Your task to perform on an android device: Empty the shopping cart on costco. Search for razer blade on costco, select the first entry, add it to the cart, then select checkout. Image 0: 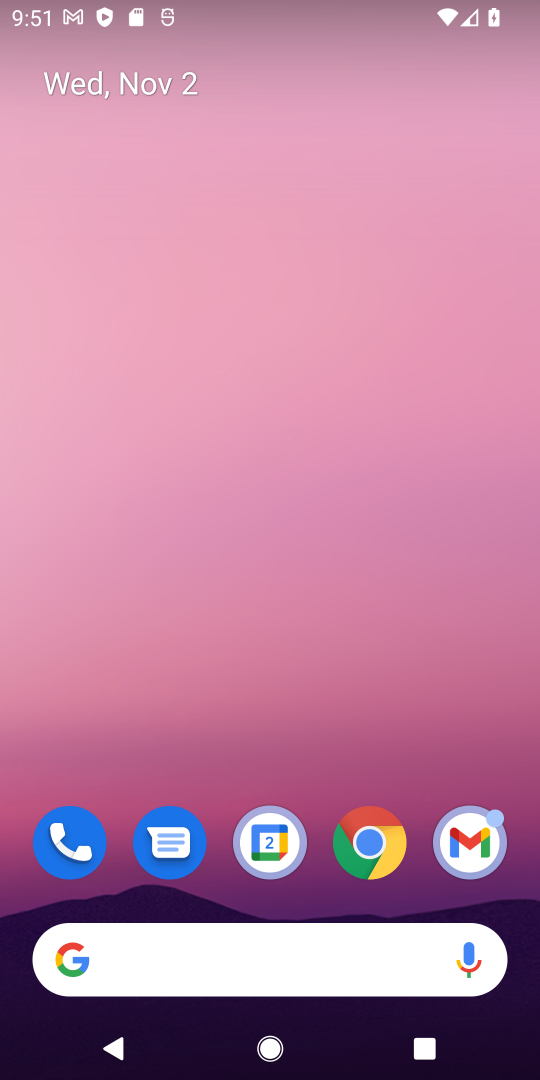
Step 0: drag from (194, 865) to (221, 176)
Your task to perform on an android device: Empty the shopping cart on costco. Search for razer blade on costco, select the first entry, add it to the cart, then select checkout. Image 1: 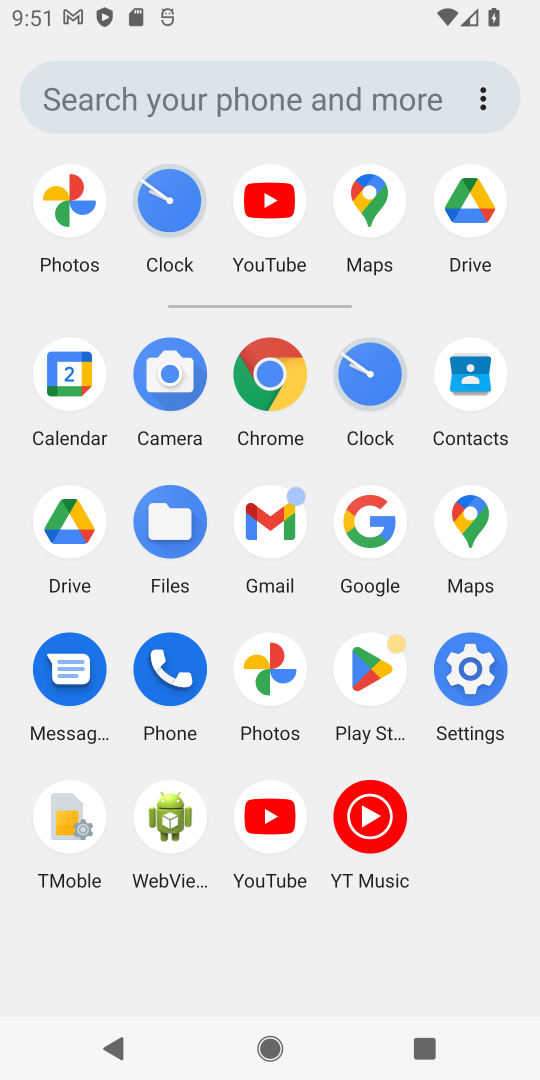
Step 1: click (358, 520)
Your task to perform on an android device: Empty the shopping cart on costco. Search for razer blade on costco, select the first entry, add it to the cart, then select checkout. Image 2: 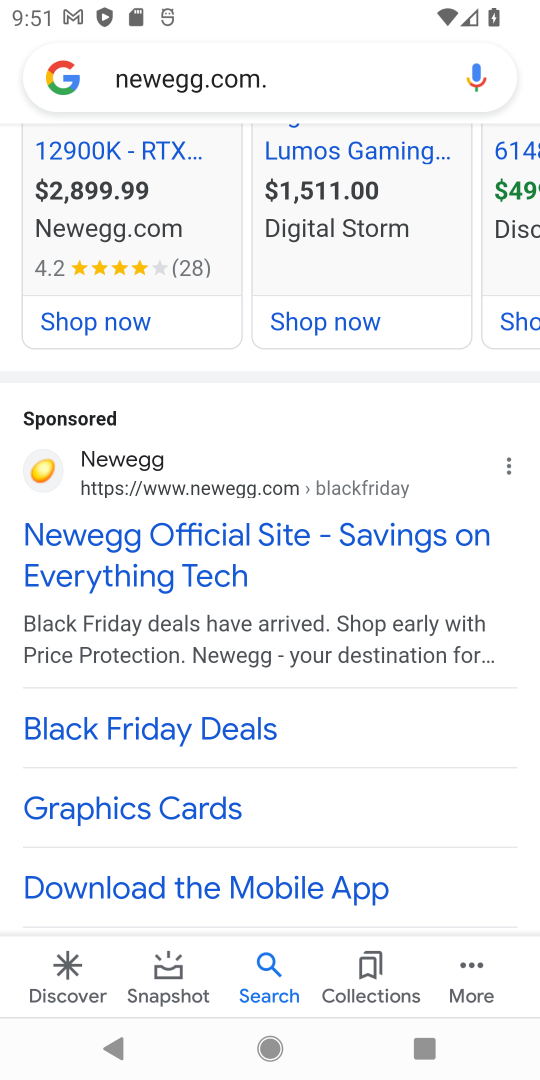
Step 2: click (310, 62)
Your task to perform on an android device: Empty the shopping cart on costco. Search for razer blade on costco, select the first entry, add it to the cart, then select checkout. Image 3: 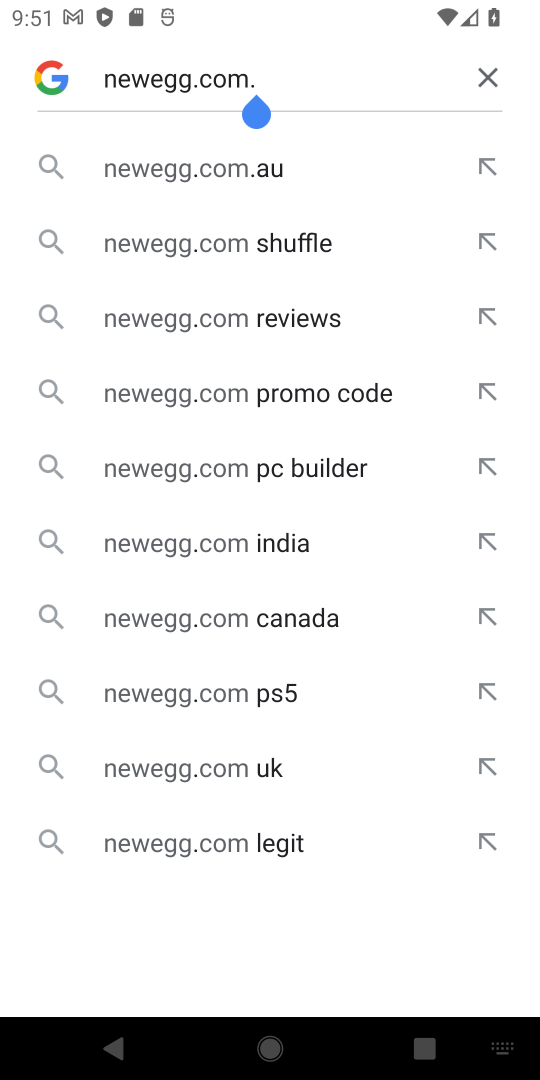
Step 3: click (493, 77)
Your task to perform on an android device: Empty the shopping cart on costco. Search for razer blade on costco, select the first entry, add it to the cart, then select checkout. Image 4: 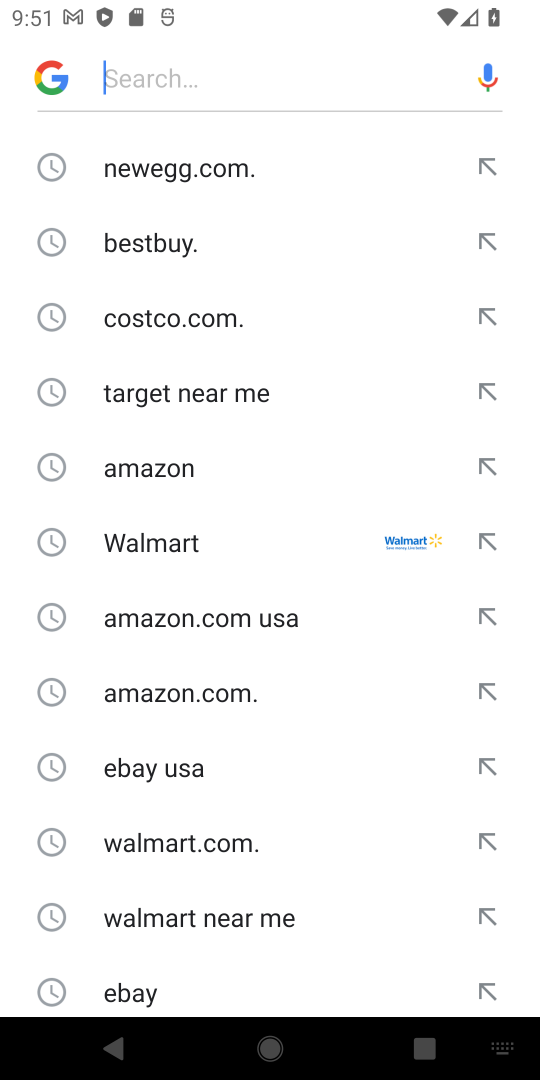
Step 4: click (229, 307)
Your task to perform on an android device: Empty the shopping cart on costco. Search for razer blade on costco, select the first entry, add it to the cart, then select checkout. Image 5: 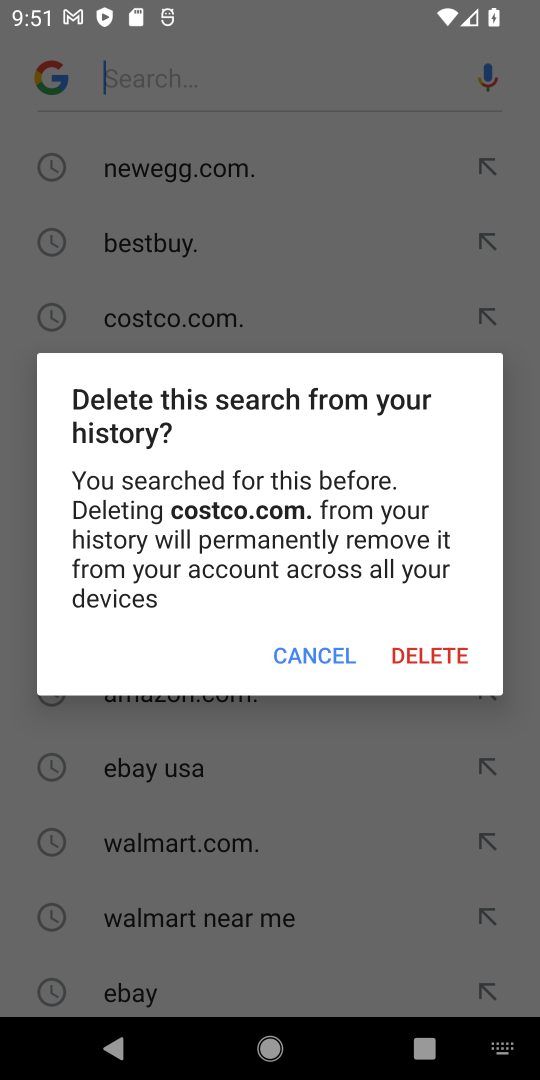
Step 5: click (319, 671)
Your task to perform on an android device: Empty the shopping cart on costco. Search for razer blade on costco, select the first entry, add it to the cart, then select checkout. Image 6: 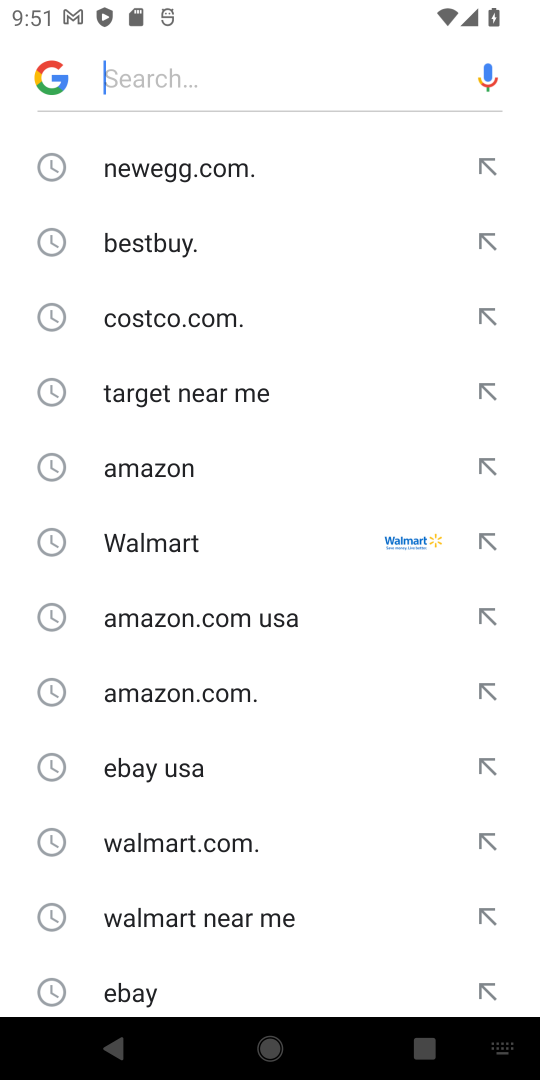
Step 6: click (254, 65)
Your task to perform on an android device: Empty the shopping cart on costco. Search for razer blade on costco, select the first entry, add it to the cart, then select checkout. Image 7: 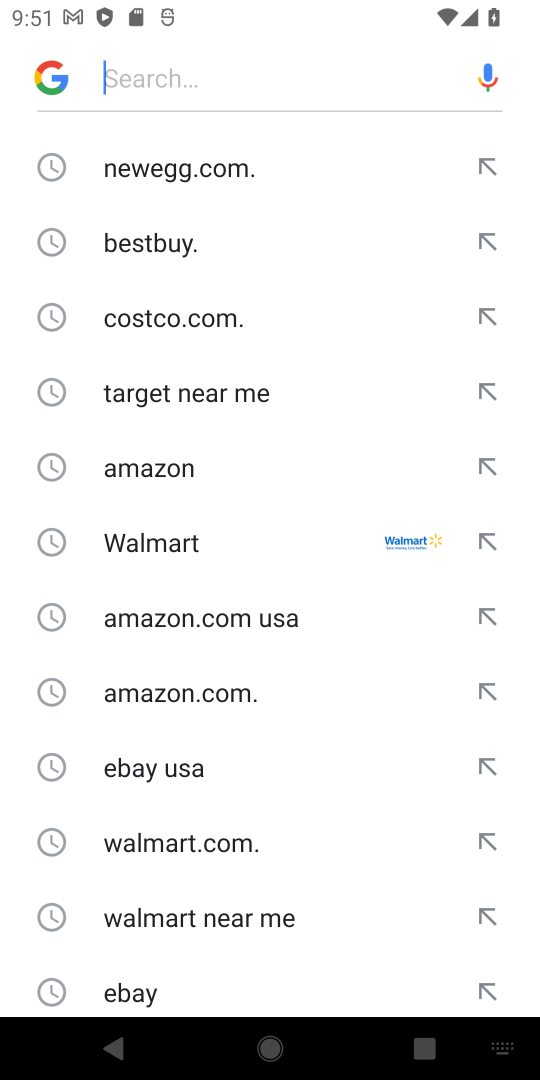
Step 7: type "costco "
Your task to perform on an android device: Empty the shopping cart on costco. Search for razer blade on costco, select the first entry, add it to the cart, then select checkout. Image 8: 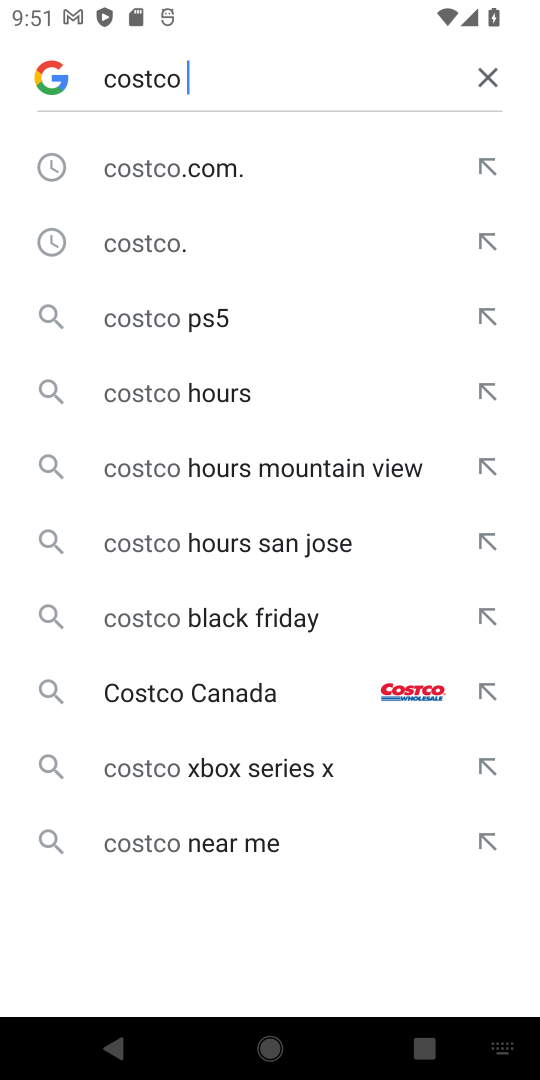
Step 8: click (180, 232)
Your task to perform on an android device: Empty the shopping cart on costco. Search for razer blade on costco, select the first entry, add it to the cart, then select checkout. Image 9: 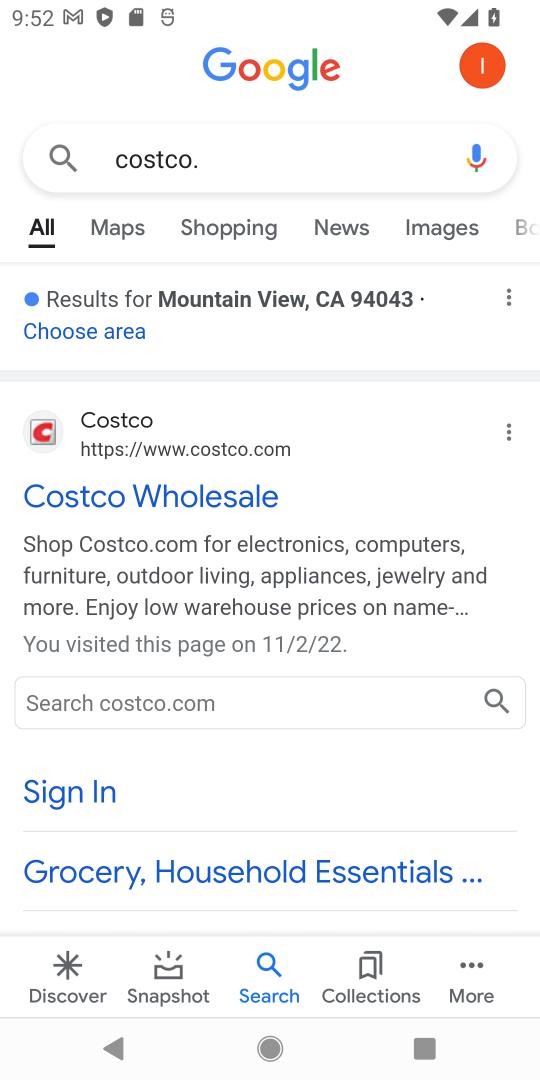
Step 9: click (49, 422)
Your task to perform on an android device: Empty the shopping cart on costco. Search for razer blade on costco, select the first entry, add it to the cart, then select checkout. Image 10: 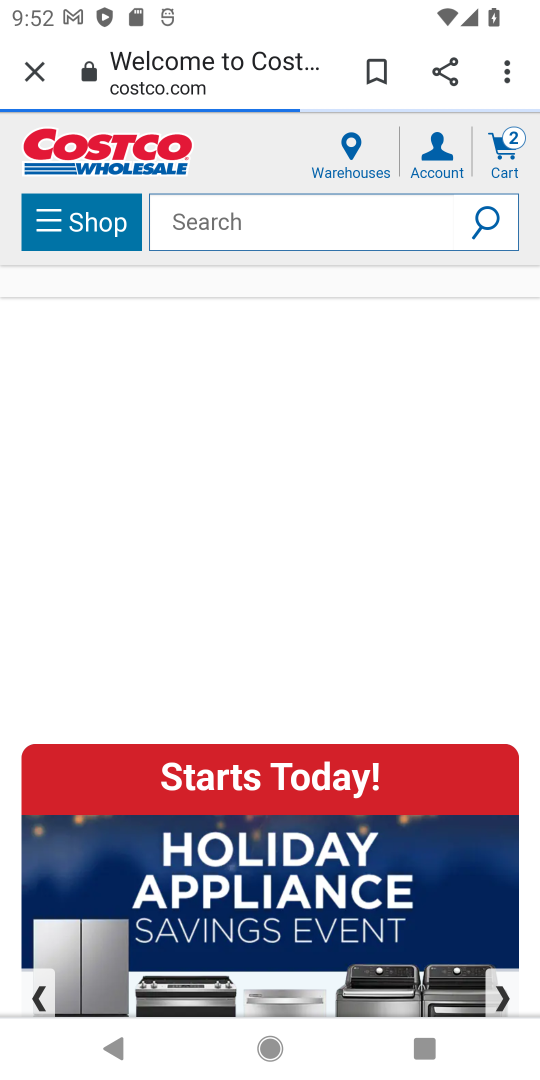
Step 10: click (231, 209)
Your task to perform on an android device: Empty the shopping cart on costco. Search for razer blade on costco, select the first entry, add it to the cart, then select checkout. Image 11: 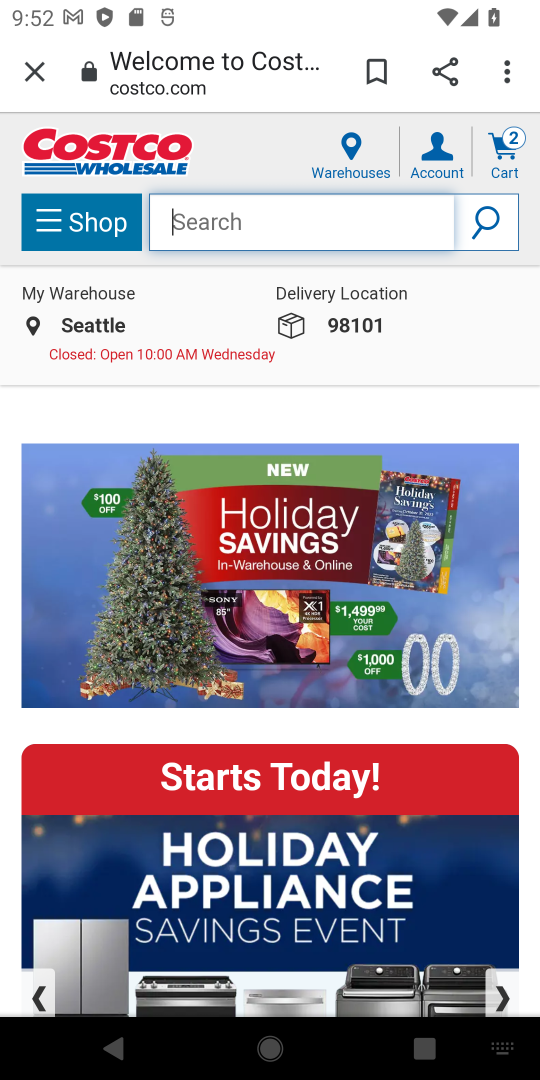
Step 11: click (356, 212)
Your task to perform on an android device: Empty the shopping cart on costco. Search for razer blade on costco, select the first entry, add it to the cart, then select checkout. Image 12: 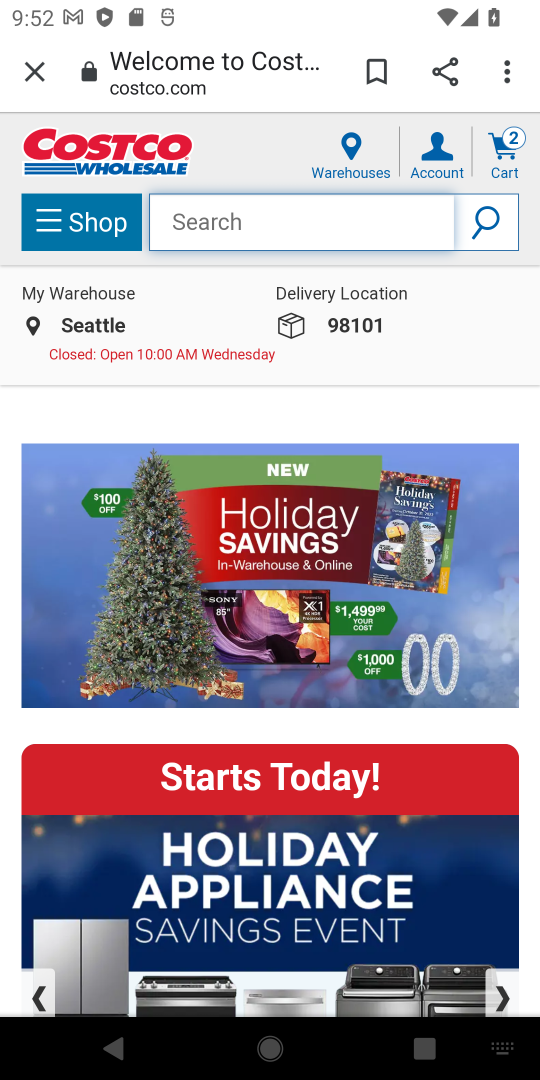
Step 12: type "costco "
Your task to perform on an android device: Empty the shopping cart on costco. Search for razer blade on costco, select the first entry, add it to the cart, then select checkout. Image 13: 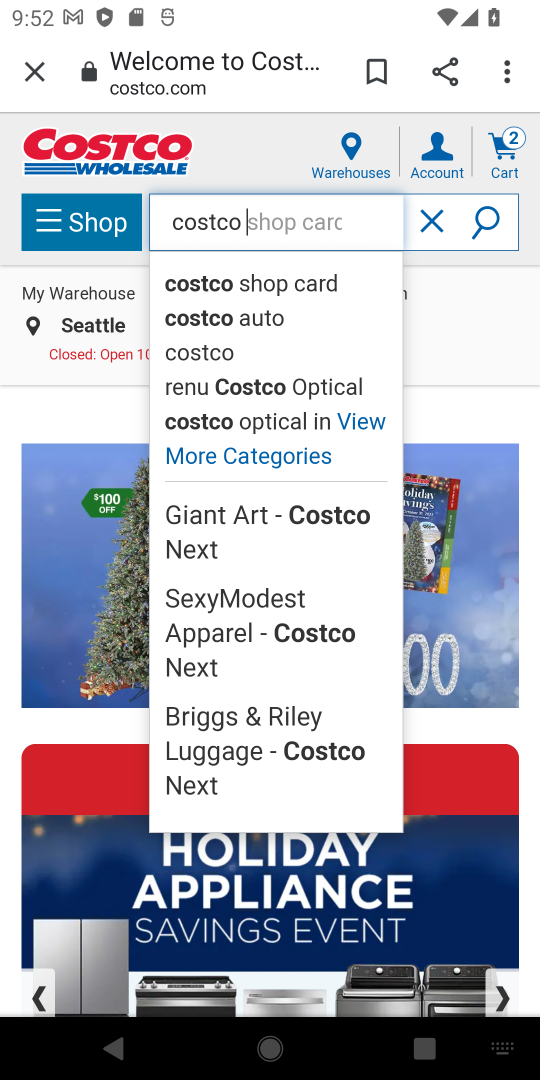
Step 13: click (447, 226)
Your task to perform on an android device: Empty the shopping cart on costco. Search for razer blade on costco, select the first entry, add it to the cart, then select checkout. Image 14: 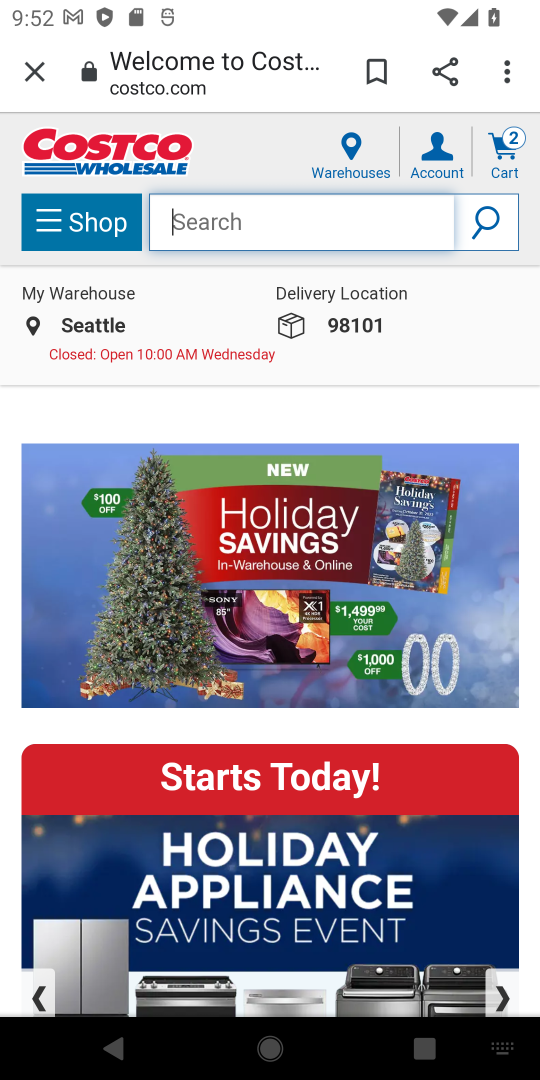
Step 14: click (368, 212)
Your task to perform on an android device: Empty the shopping cart on costco. Search for razer blade on costco, select the first entry, add it to the cart, then select checkout. Image 15: 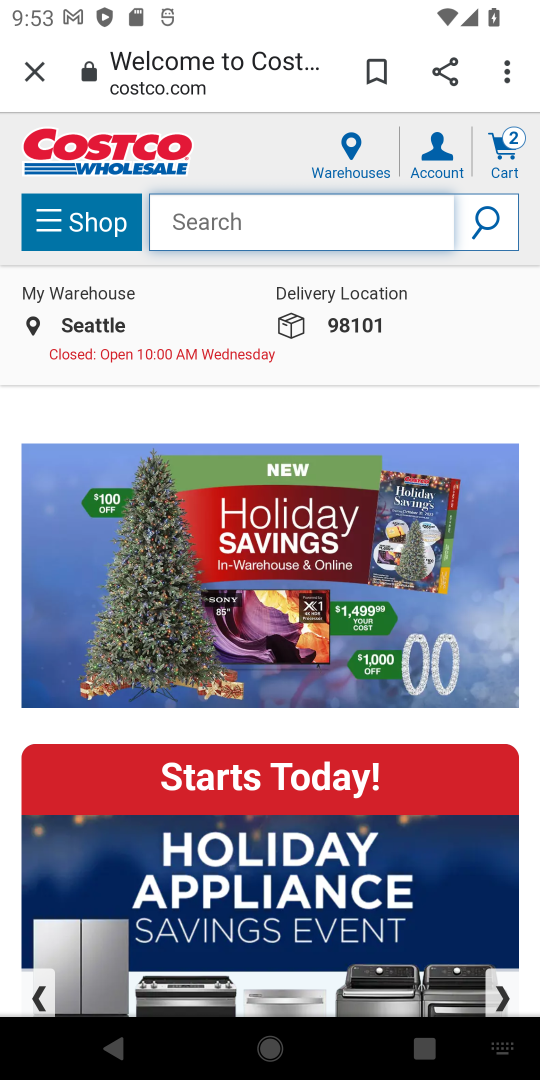
Step 15: type "razer blade  "
Your task to perform on an android device: Empty the shopping cart on costco. Search for razer blade on costco, select the first entry, add it to the cart, then select checkout. Image 16: 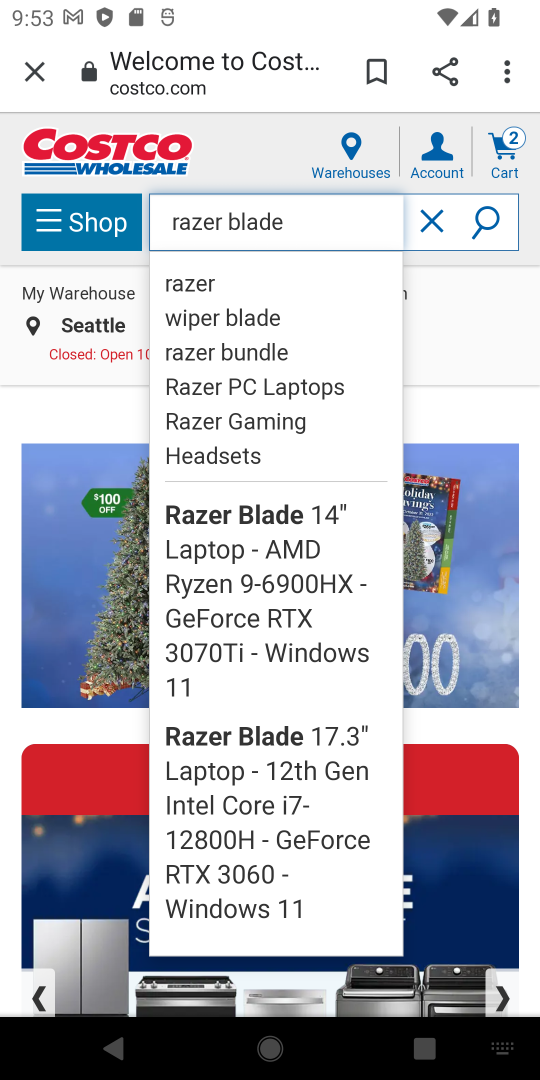
Step 16: click (229, 511)
Your task to perform on an android device: Empty the shopping cart on costco. Search for razer blade on costco, select the first entry, add it to the cart, then select checkout. Image 17: 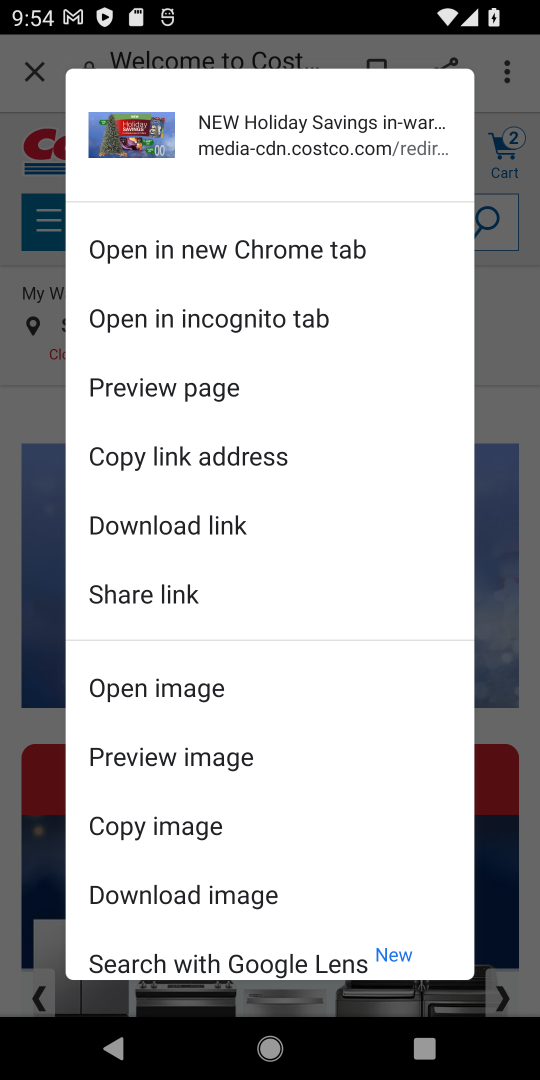
Step 17: click (504, 416)
Your task to perform on an android device: Empty the shopping cart on costco. Search for razer blade on costco, select the first entry, add it to the cart, then select checkout. Image 18: 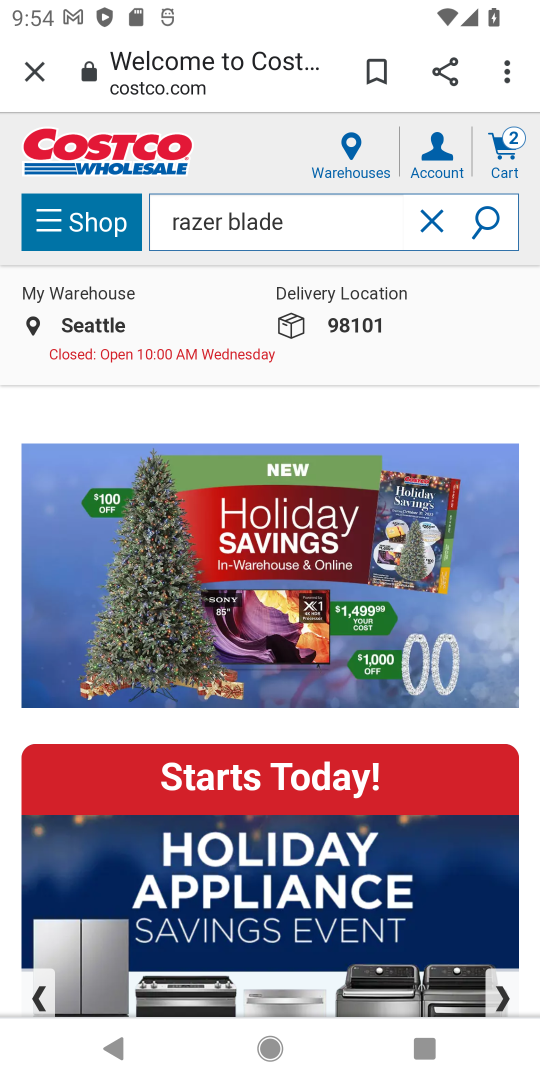
Step 18: click (488, 211)
Your task to perform on an android device: Empty the shopping cart on costco. Search for razer blade on costco, select the first entry, add it to the cart, then select checkout. Image 19: 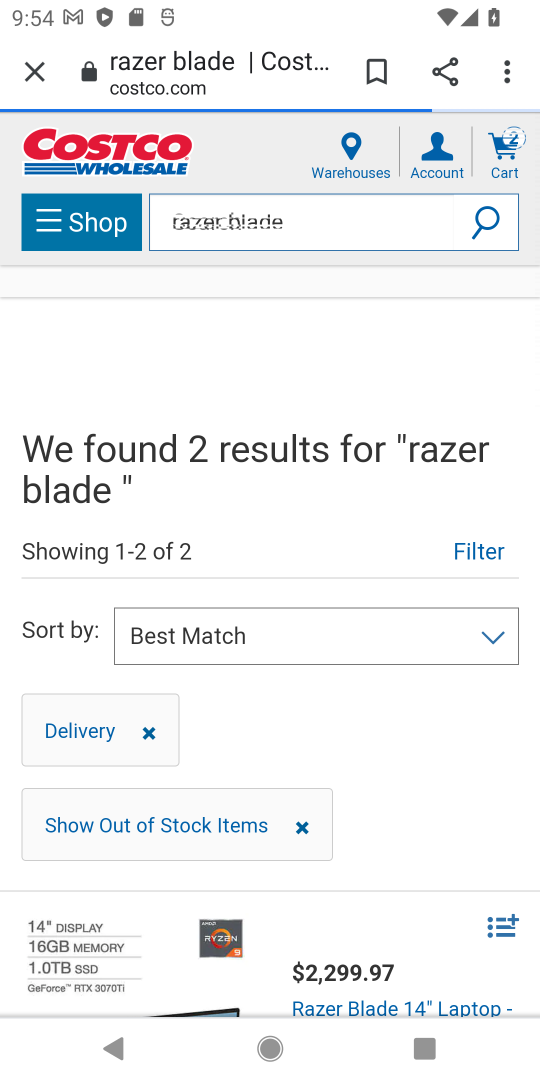
Step 19: drag from (142, 796) to (177, 298)
Your task to perform on an android device: Empty the shopping cart on costco. Search for razer blade on costco, select the first entry, add it to the cart, then select checkout. Image 20: 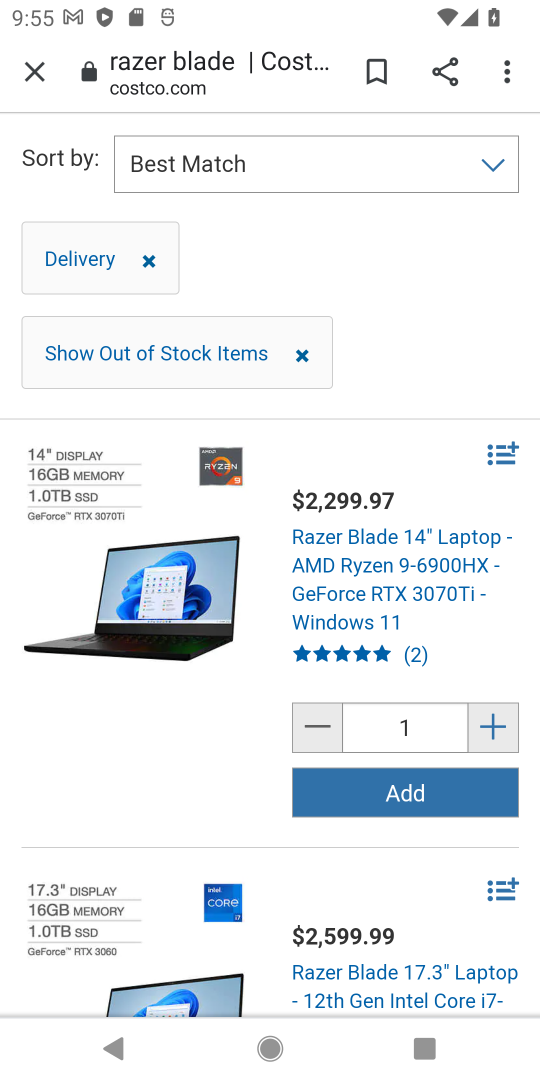
Step 20: click (377, 789)
Your task to perform on an android device: Empty the shopping cart on costco. Search for razer blade on costco, select the first entry, add it to the cart, then select checkout. Image 21: 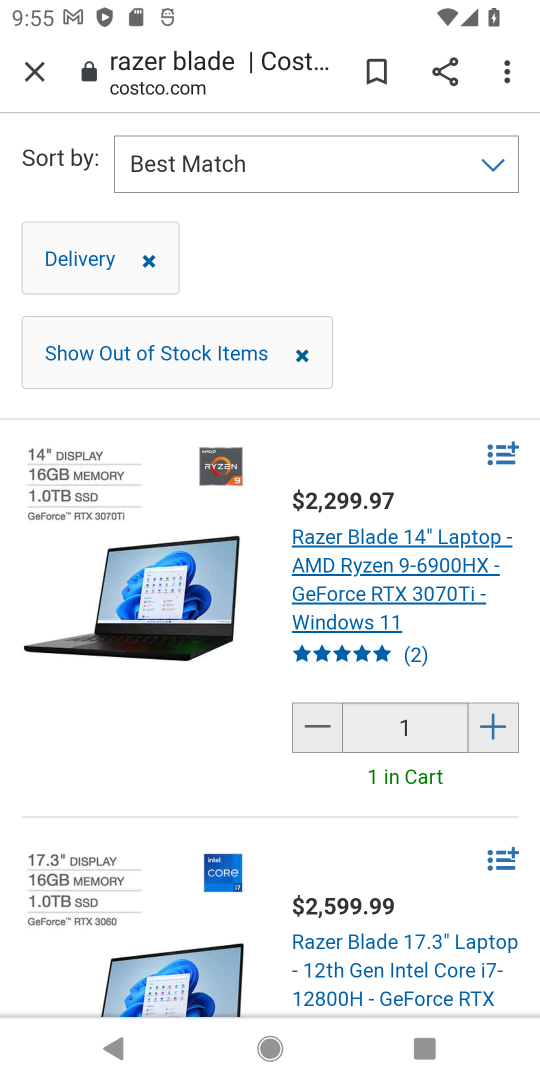
Step 21: task complete